Your task to perform on an android device: add a contact in the contacts app Image 0: 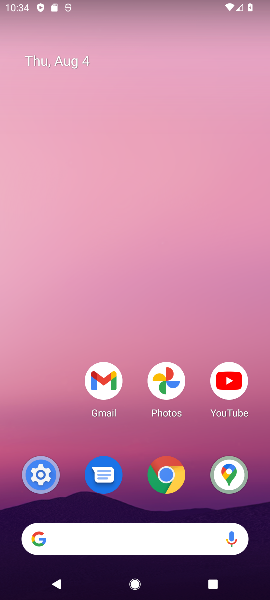
Step 0: drag from (135, 452) to (114, 122)
Your task to perform on an android device: add a contact in the contacts app Image 1: 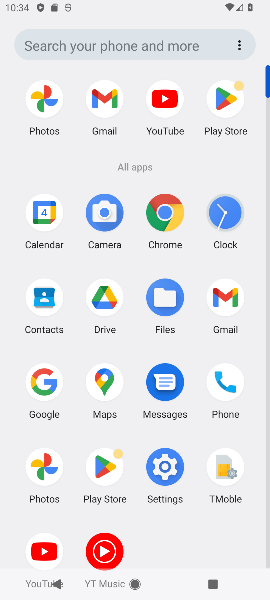
Step 1: click (39, 295)
Your task to perform on an android device: add a contact in the contacts app Image 2: 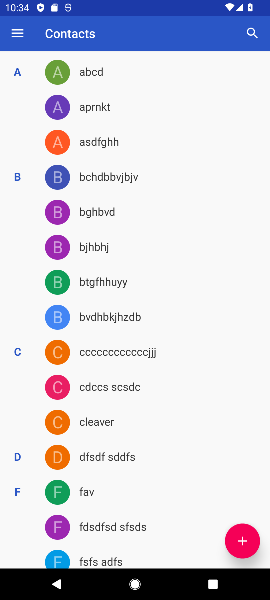
Step 2: click (243, 544)
Your task to perform on an android device: add a contact in the contacts app Image 3: 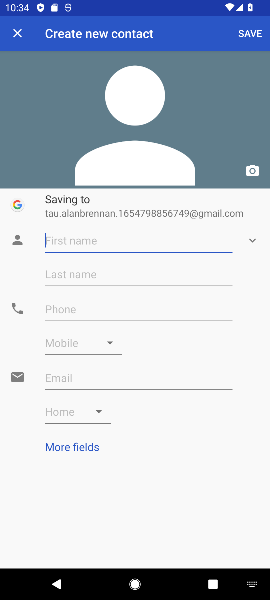
Step 3: type "uuyt"
Your task to perform on an android device: add a contact in the contacts app Image 4: 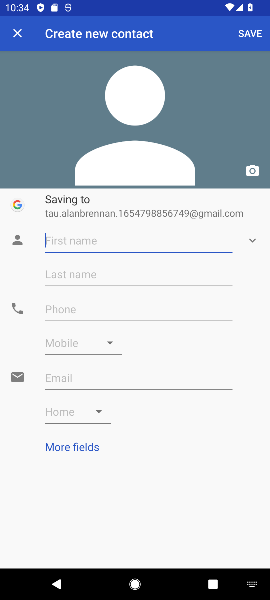
Step 4: click (154, 312)
Your task to perform on an android device: add a contact in the contacts app Image 5: 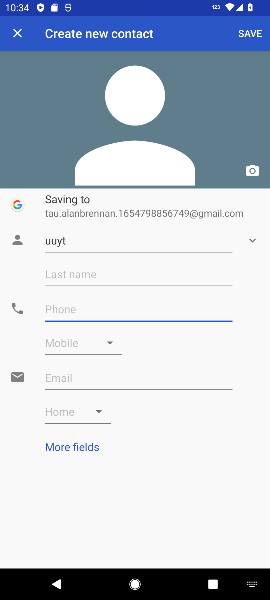
Step 5: type "7778886666"
Your task to perform on an android device: add a contact in the contacts app Image 6: 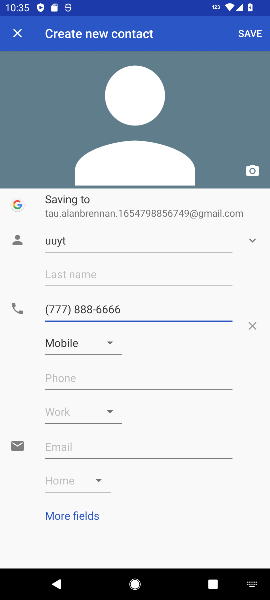
Step 6: click (252, 42)
Your task to perform on an android device: add a contact in the contacts app Image 7: 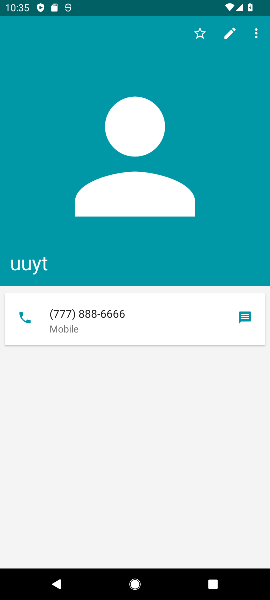
Step 7: task complete